Your task to perform on an android device: Go to location settings Image 0: 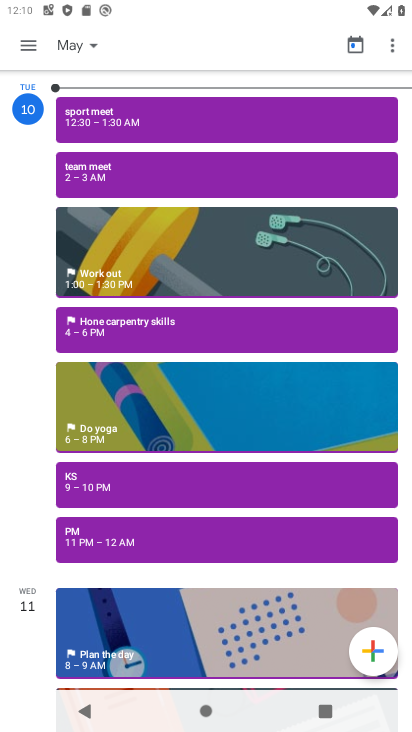
Step 0: click (300, 575)
Your task to perform on an android device: Go to location settings Image 1: 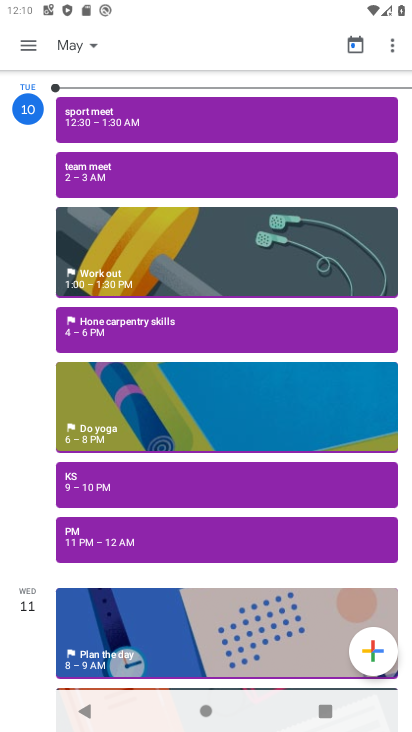
Step 1: press home button
Your task to perform on an android device: Go to location settings Image 2: 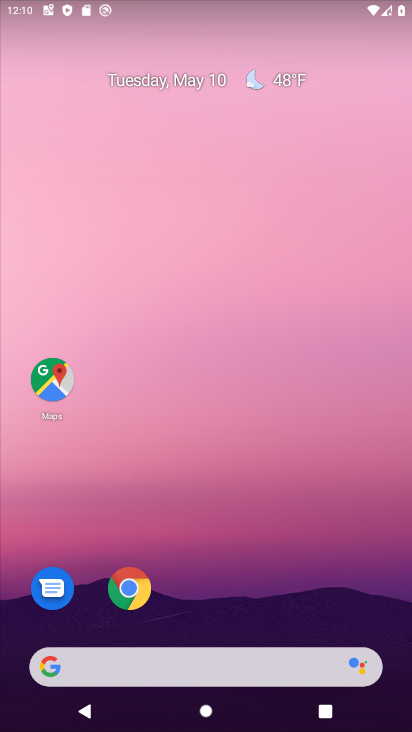
Step 2: press home button
Your task to perform on an android device: Go to location settings Image 3: 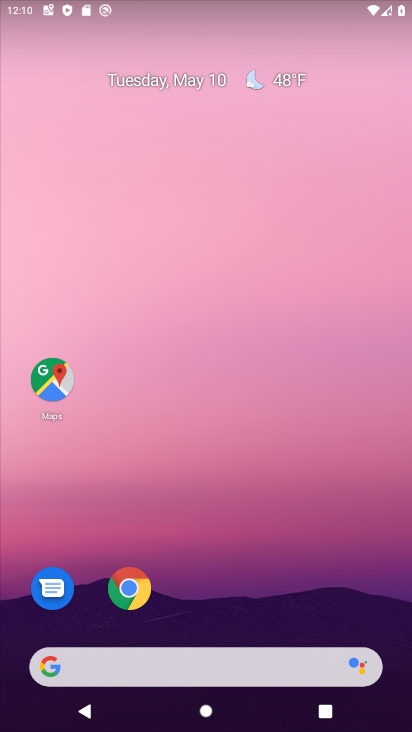
Step 3: drag from (242, 617) to (243, 184)
Your task to perform on an android device: Go to location settings Image 4: 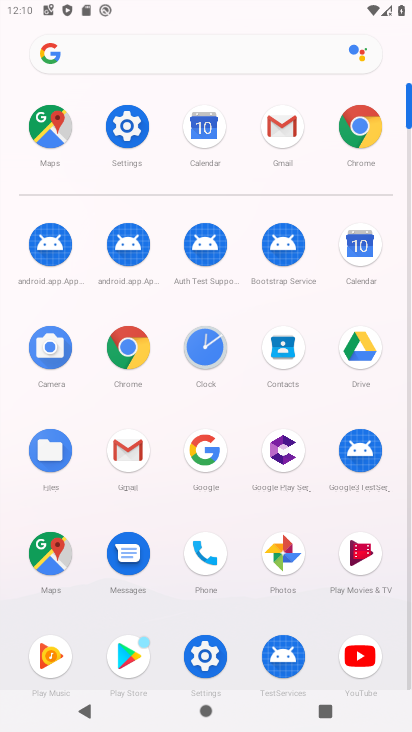
Step 4: click (108, 119)
Your task to perform on an android device: Go to location settings Image 5: 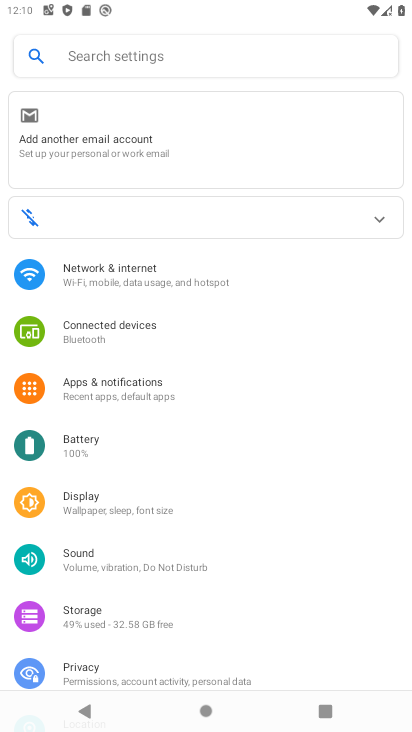
Step 5: drag from (286, 609) to (322, 679)
Your task to perform on an android device: Go to location settings Image 6: 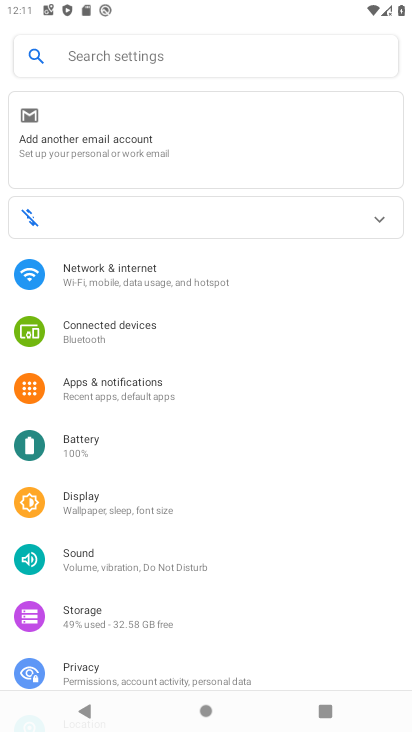
Step 6: drag from (188, 544) to (177, 336)
Your task to perform on an android device: Go to location settings Image 7: 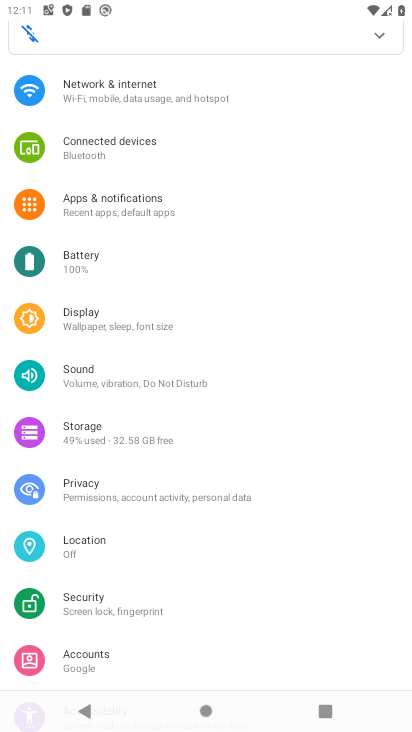
Step 7: click (99, 535)
Your task to perform on an android device: Go to location settings Image 8: 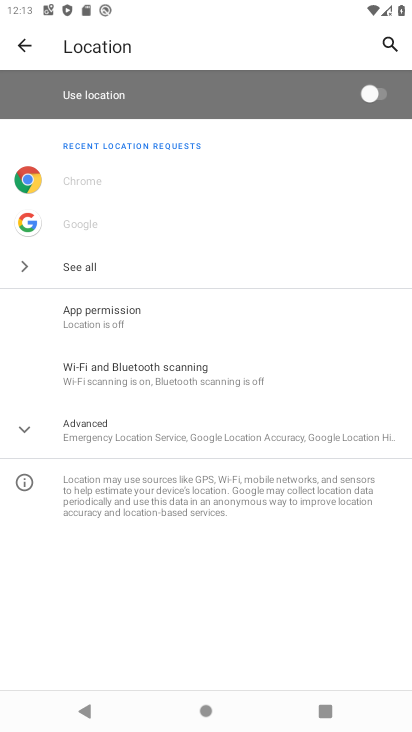
Step 8: task complete